Your task to perform on an android device: Is it going to rain this weekend? Image 0: 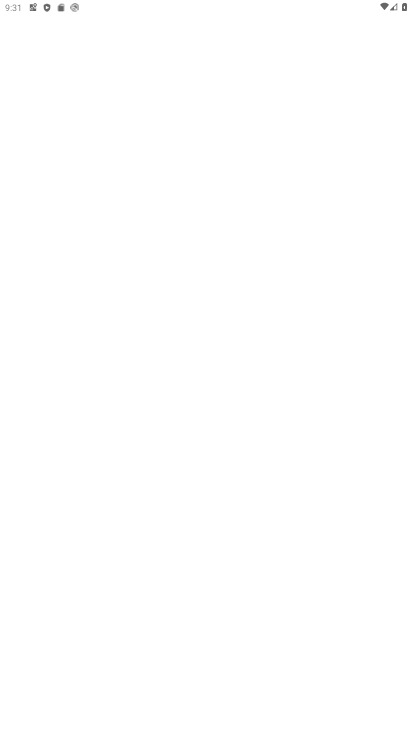
Step 0: press home button
Your task to perform on an android device: Is it going to rain this weekend? Image 1: 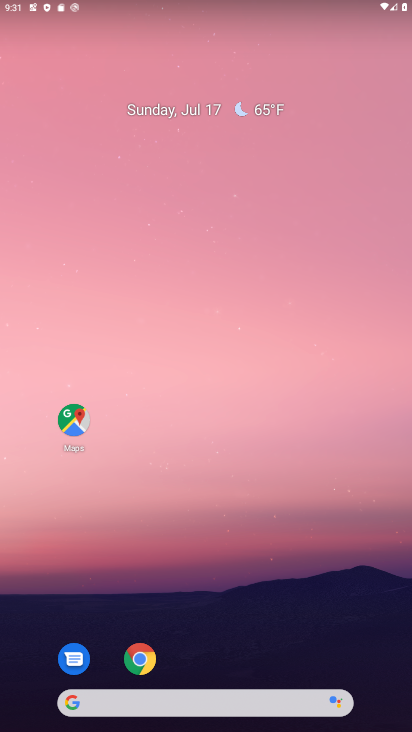
Step 1: click (257, 109)
Your task to perform on an android device: Is it going to rain this weekend? Image 2: 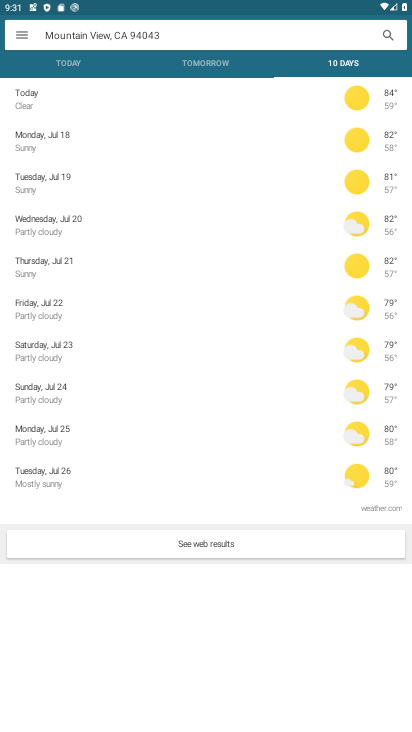
Step 2: task complete